Your task to perform on an android device: Is it going to rain tomorrow? Image 0: 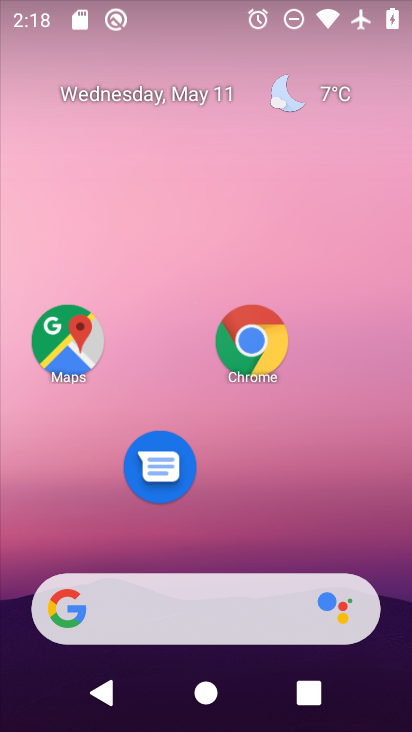
Step 0: click (318, 88)
Your task to perform on an android device: Is it going to rain tomorrow? Image 1: 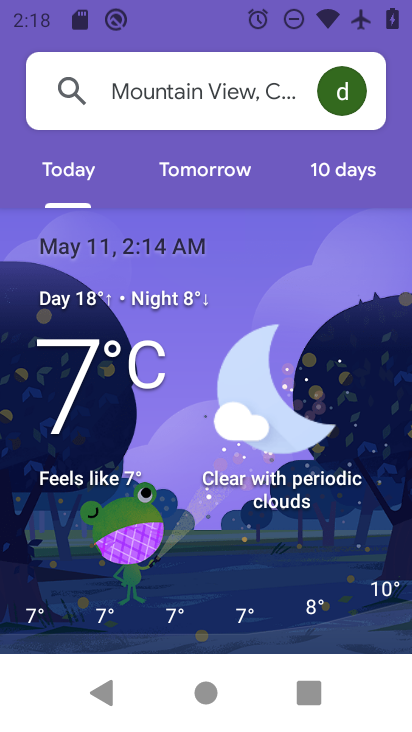
Step 1: click (187, 162)
Your task to perform on an android device: Is it going to rain tomorrow? Image 2: 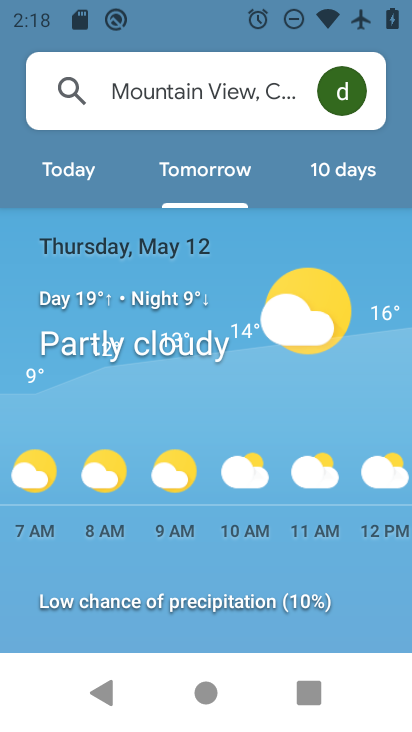
Step 2: task complete